Your task to perform on an android device: Go to Yahoo.com Image 0: 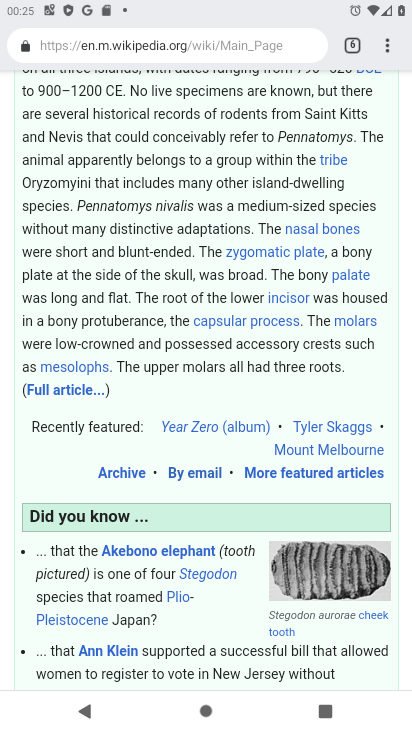
Step 0: press home button
Your task to perform on an android device: Go to Yahoo.com Image 1: 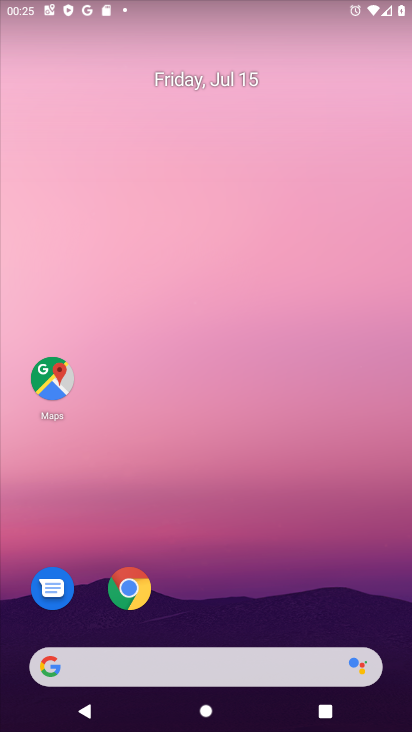
Step 1: click (130, 598)
Your task to perform on an android device: Go to Yahoo.com Image 2: 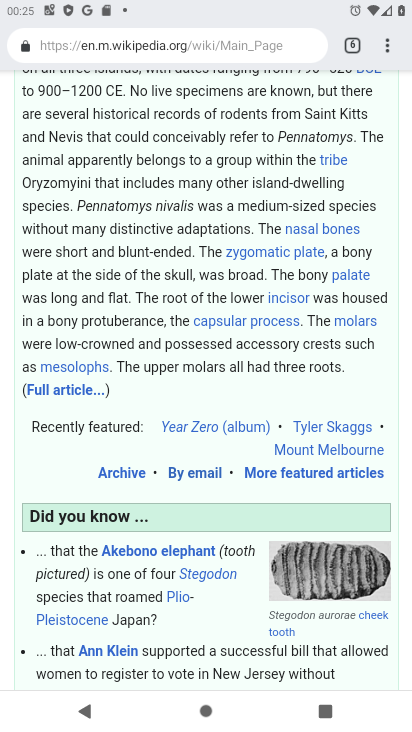
Step 2: drag from (389, 47) to (306, 88)
Your task to perform on an android device: Go to Yahoo.com Image 3: 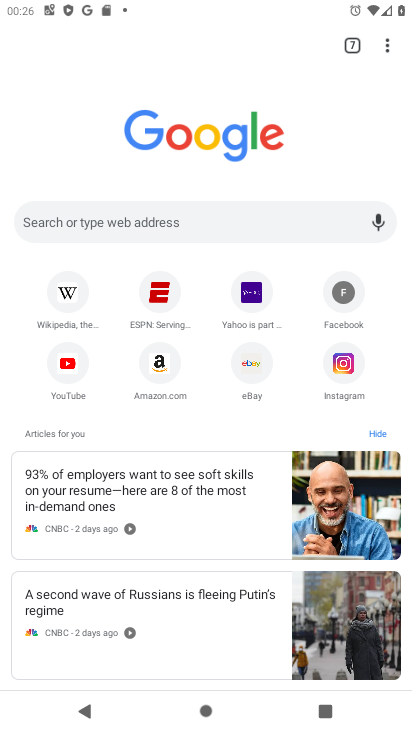
Step 3: click (248, 296)
Your task to perform on an android device: Go to Yahoo.com Image 4: 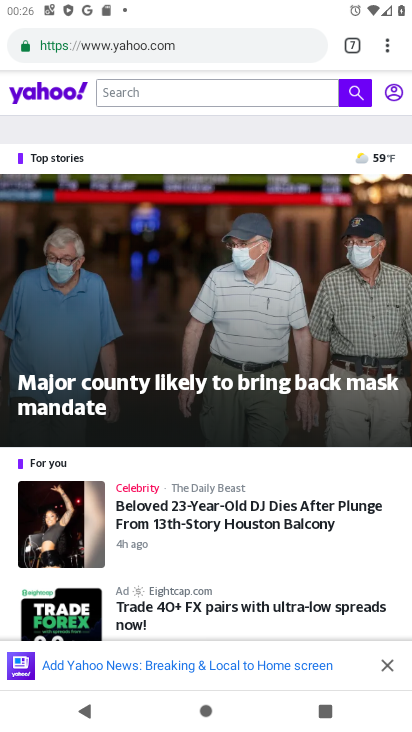
Step 4: task complete